Your task to perform on an android device: Show me the alarms in the clock app Image 0: 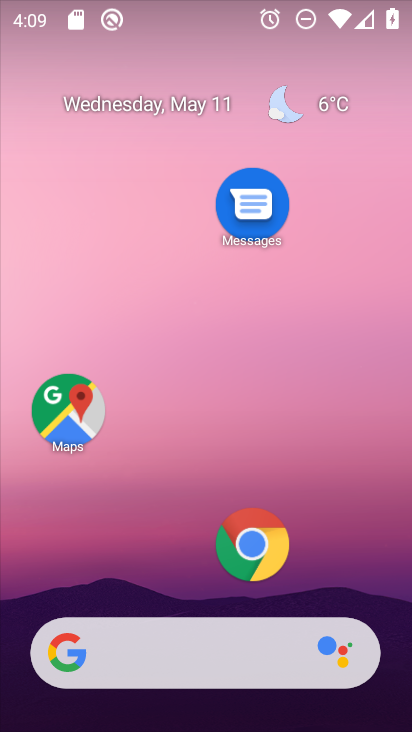
Step 0: drag from (188, 535) to (304, 74)
Your task to perform on an android device: Show me the alarms in the clock app Image 1: 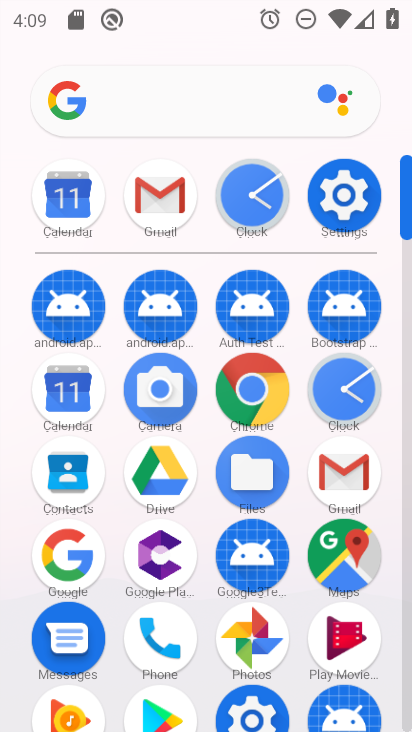
Step 1: click (329, 401)
Your task to perform on an android device: Show me the alarms in the clock app Image 2: 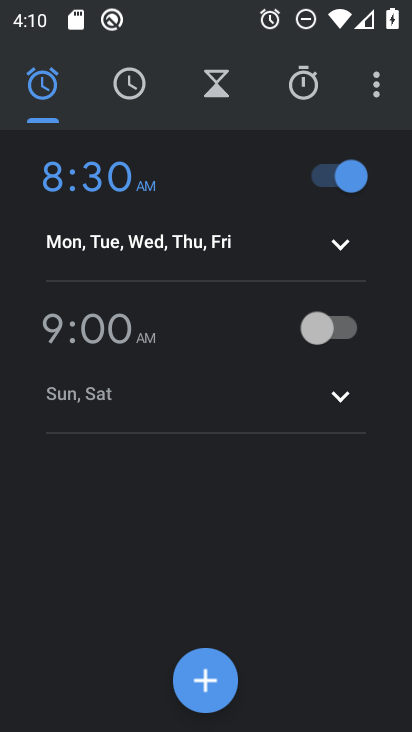
Step 2: task complete